Your task to perform on an android device: open app "VLC for Android" (install if not already installed) and enter user name: "Yves@outlook.com" and password: "internally" Image 0: 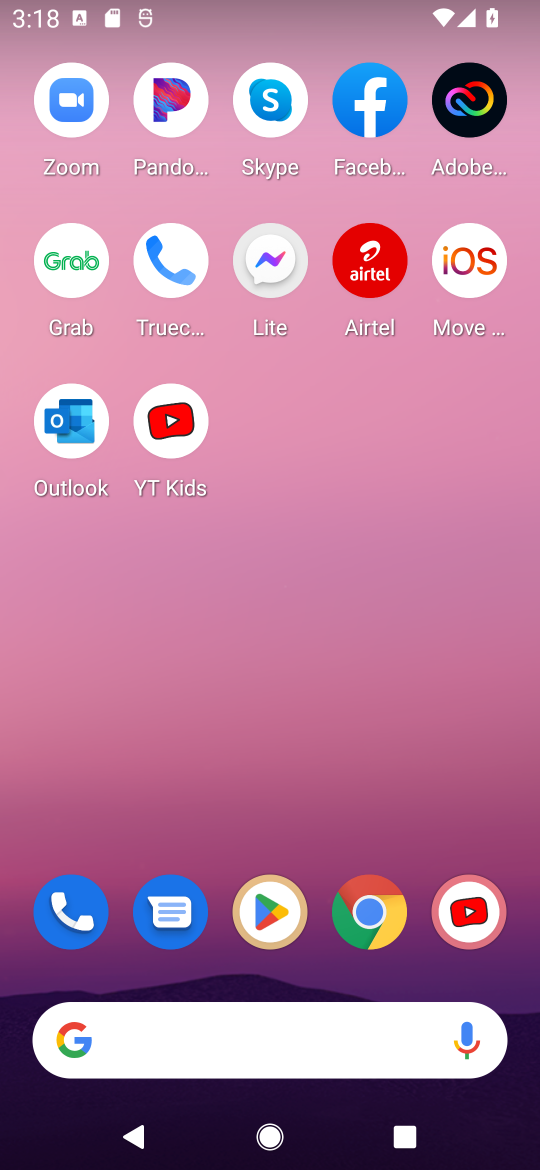
Step 0: drag from (196, 1056) to (269, 339)
Your task to perform on an android device: open app "VLC for Android" (install if not already installed) and enter user name: "Yves@outlook.com" and password: "internally" Image 1: 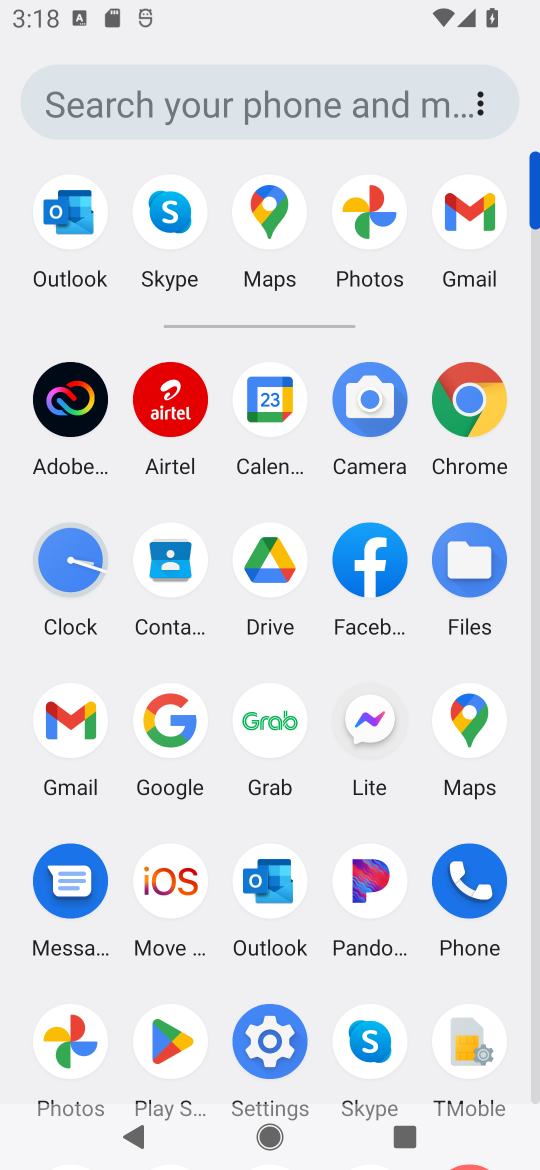
Step 1: click (171, 1043)
Your task to perform on an android device: open app "VLC for Android" (install if not already installed) and enter user name: "Yves@outlook.com" and password: "internally" Image 2: 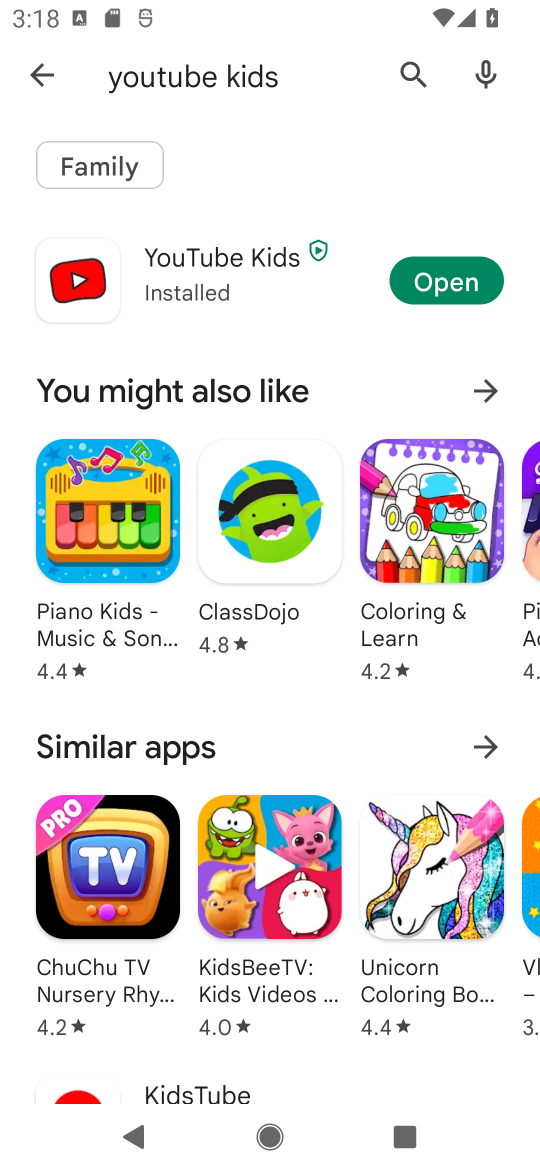
Step 2: press back button
Your task to perform on an android device: open app "VLC for Android" (install if not already installed) and enter user name: "Yves@outlook.com" and password: "internally" Image 3: 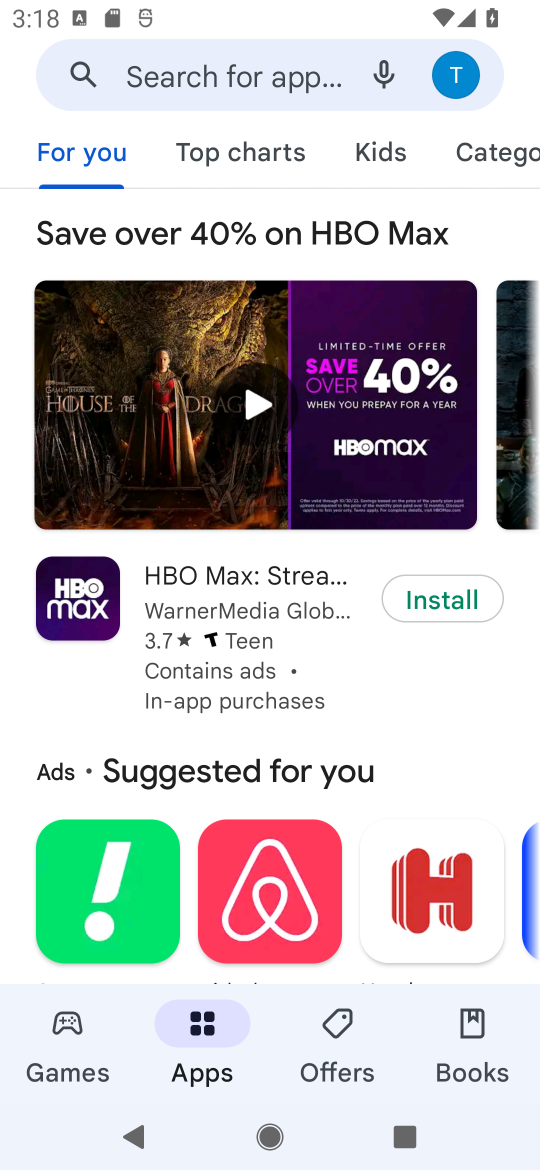
Step 3: click (271, 82)
Your task to perform on an android device: open app "VLC for Android" (install if not already installed) and enter user name: "Yves@outlook.com" and password: "internally" Image 4: 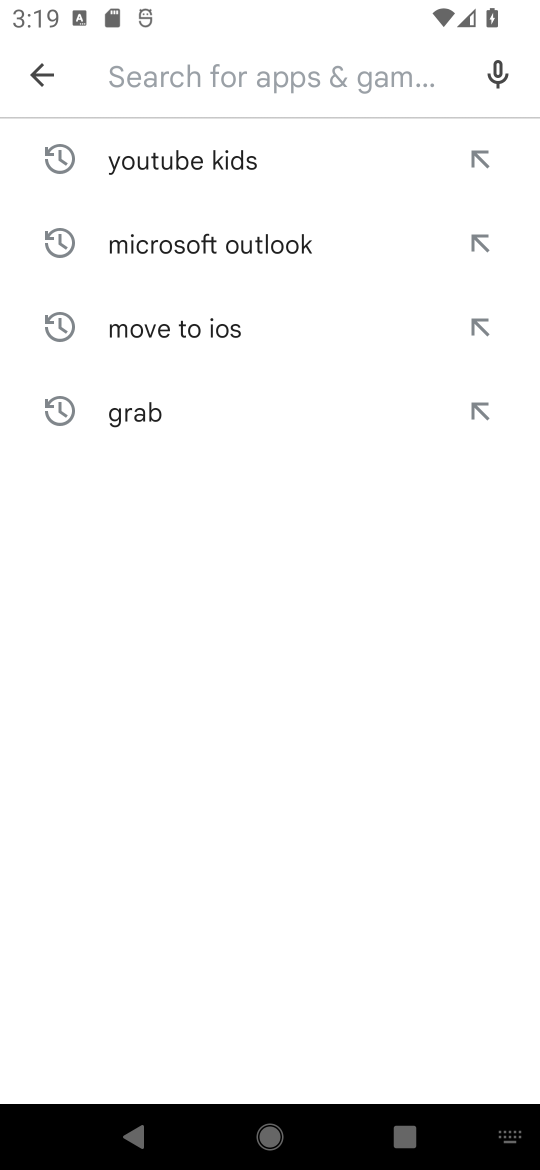
Step 4: type "VLC for Android"
Your task to perform on an android device: open app "VLC for Android" (install if not already installed) and enter user name: "Yves@outlook.com" and password: "internally" Image 5: 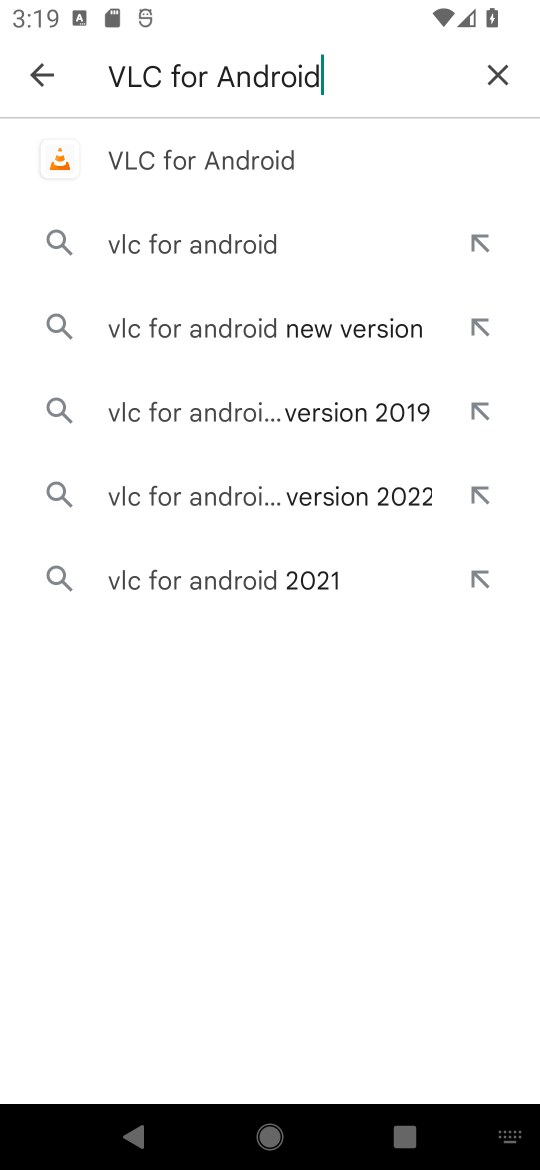
Step 5: click (248, 172)
Your task to perform on an android device: open app "VLC for Android" (install if not already installed) and enter user name: "Yves@outlook.com" and password: "internally" Image 6: 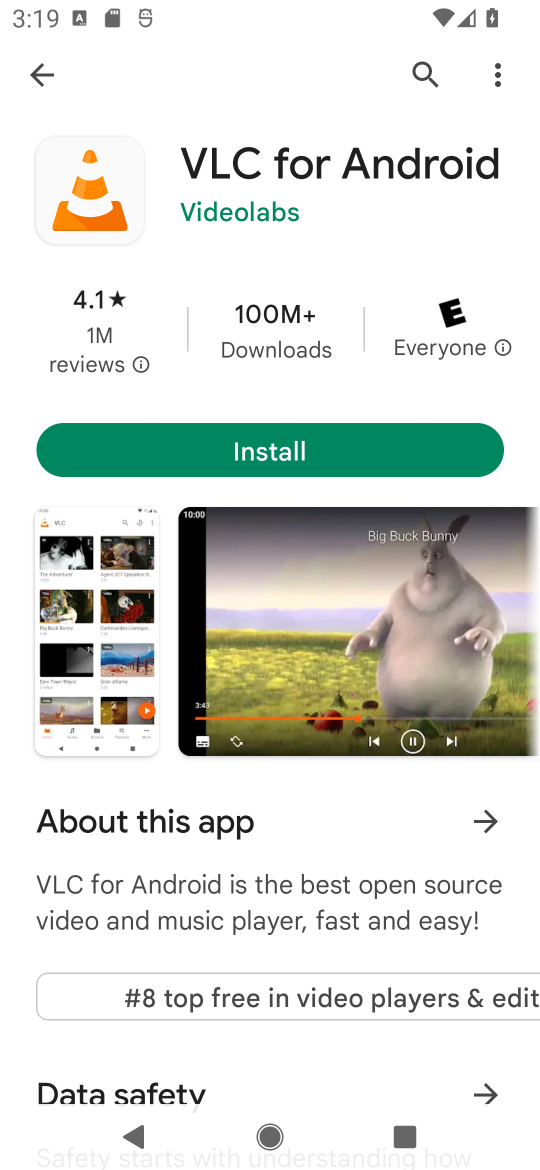
Step 6: click (251, 452)
Your task to perform on an android device: open app "VLC for Android" (install if not already installed) and enter user name: "Yves@outlook.com" and password: "internally" Image 7: 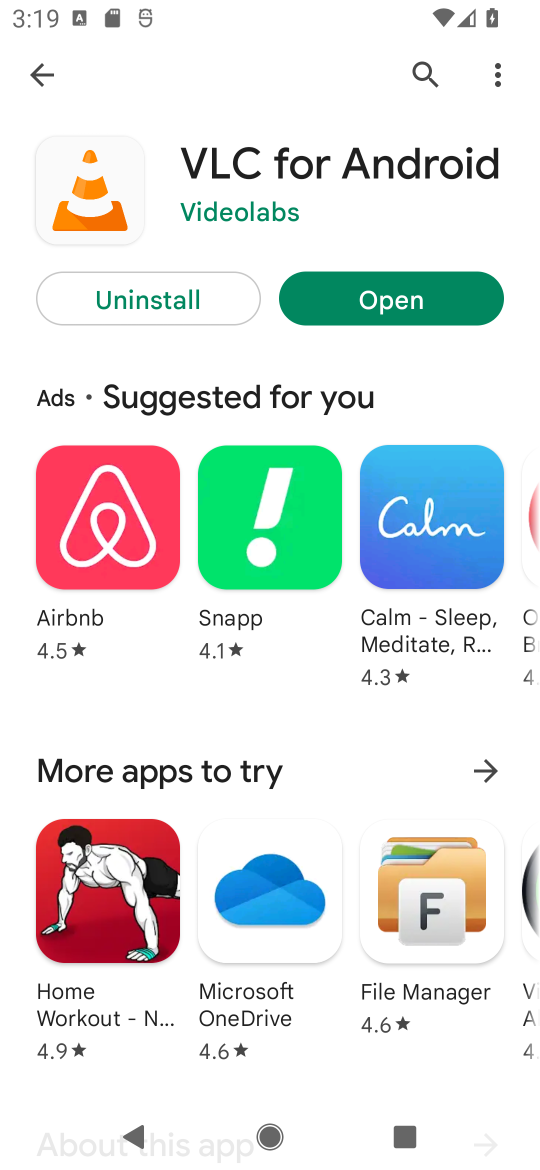
Step 7: click (390, 301)
Your task to perform on an android device: open app "VLC for Android" (install if not already installed) and enter user name: "Yves@outlook.com" and password: "internally" Image 8: 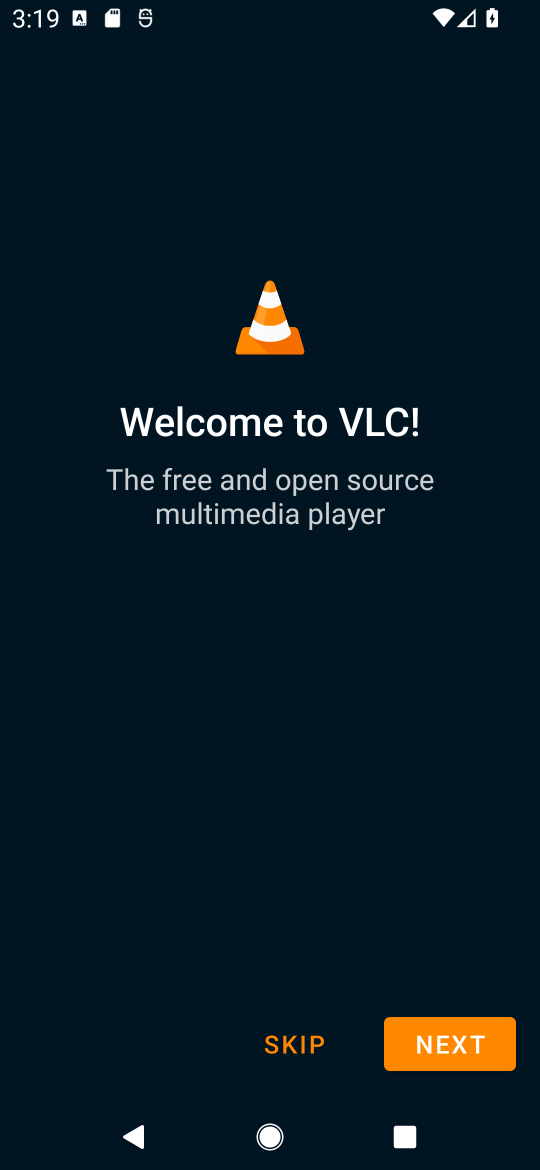
Step 8: click (308, 1044)
Your task to perform on an android device: open app "VLC for Android" (install if not already installed) and enter user name: "Yves@outlook.com" and password: "internally" Image 9: 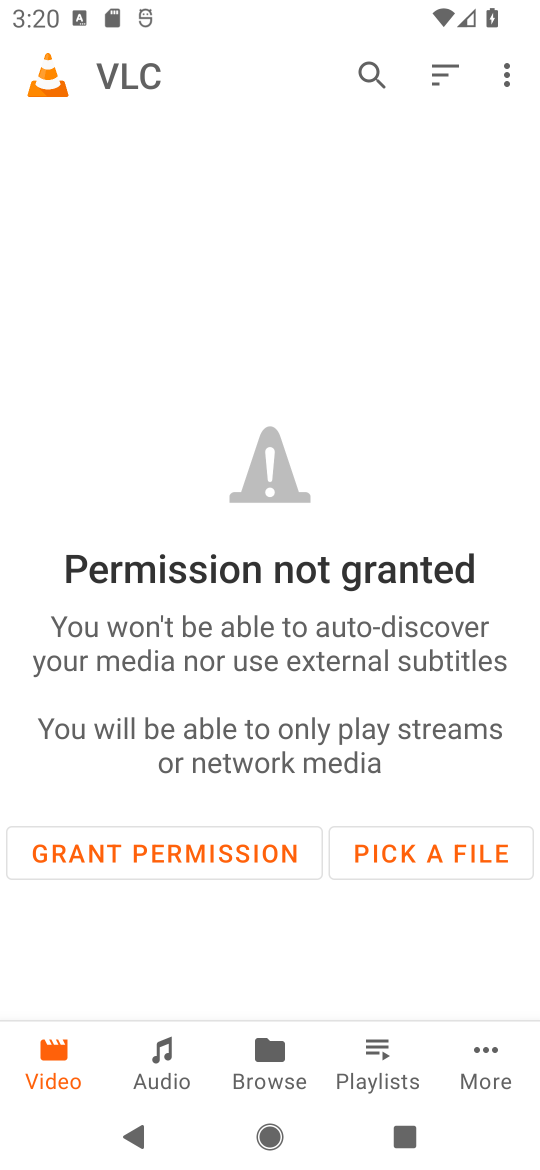
Step 9: click (46, 75)
Your task to perform on an android device: open app "VLC for Android" (install if not already installed) and enter user name: "Yves@outlook.com" and password: "internally" Image 10: 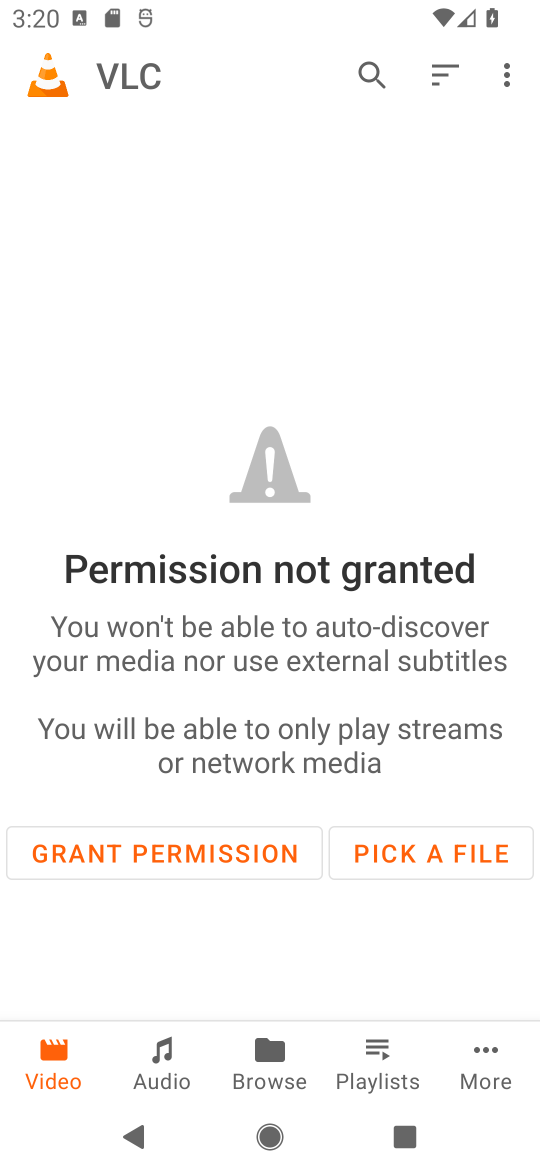
Step 10: click (512, 78)
Your task to perform on an android device: open app "VLC for Android" (install if not already installed) and enter user name: "Yves@outlook.com" and password: "internally" Image 11: 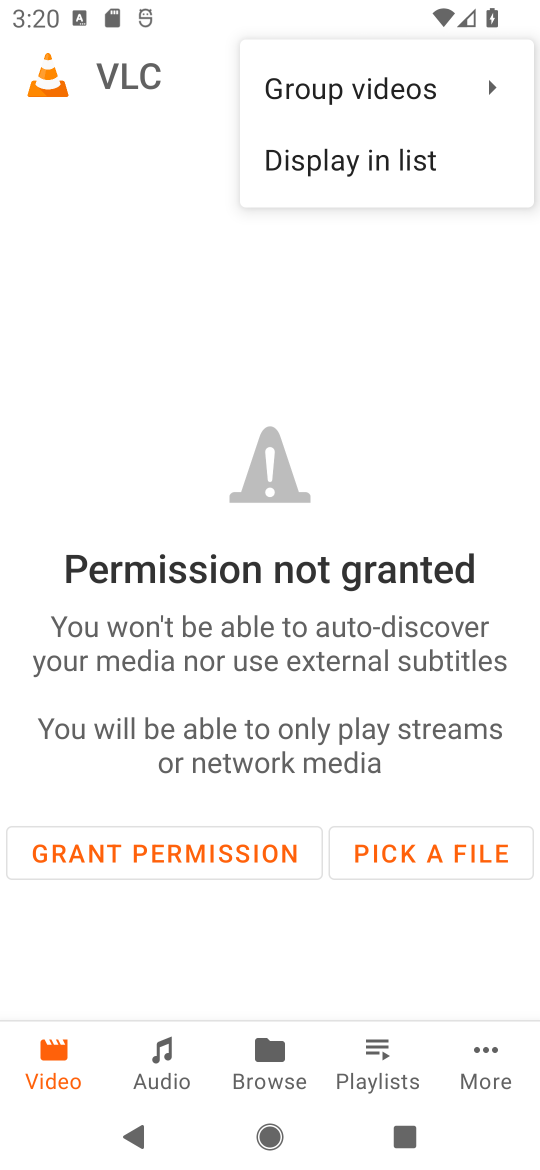
Step 11: click (473, 1056)
Your task to perform on an android device: open app "VLC for Android" (install if not already installed) and enter user name: "Yves@outlook.com" and password: "internally" Image 12: 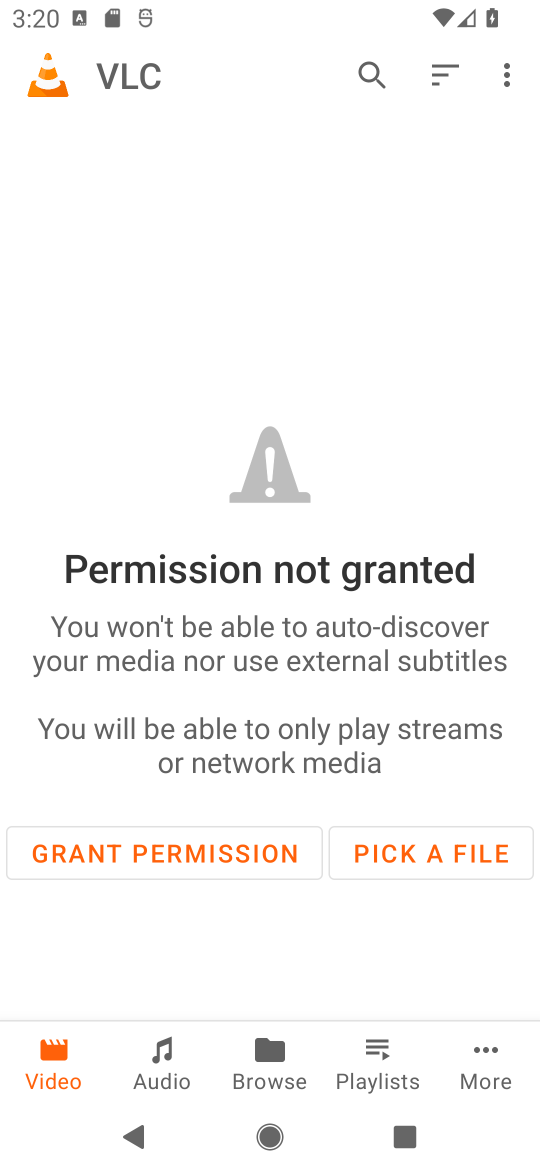
Step 12: click (487, 1054)
Your task to perform on an android device: open app "VLC for Android" (install if not already installed) and enter user name: "Yves@outlook.com" and password: "internally" Image 13: 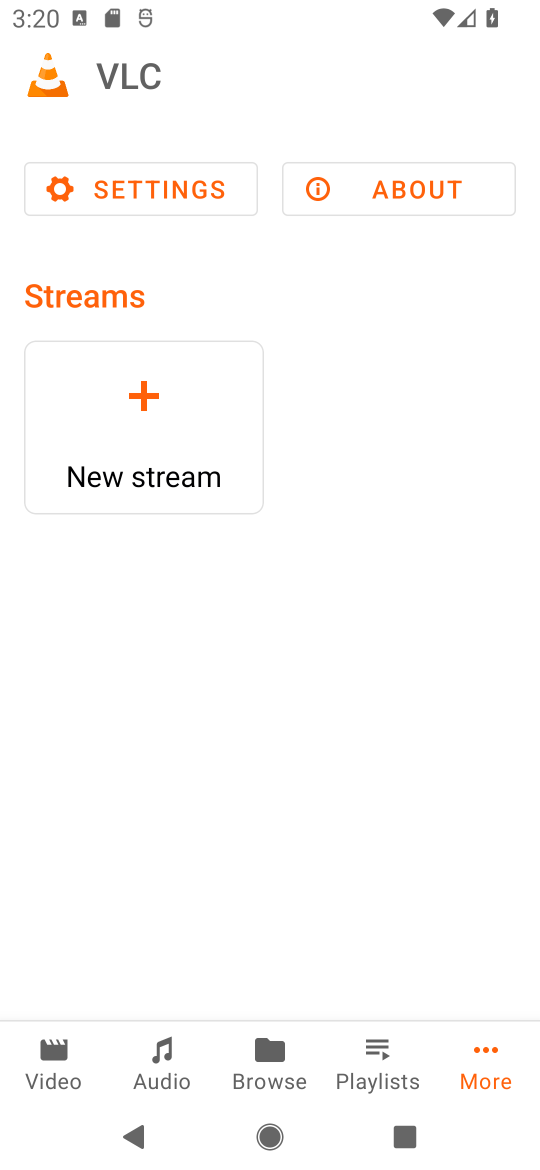
Step 13: click (162, 174)
Your task to perform on an android device: open app "VLC for Android" (install if not already installed) and enter user name: "Yves@outlook.com" and password: "internally" Image 14: 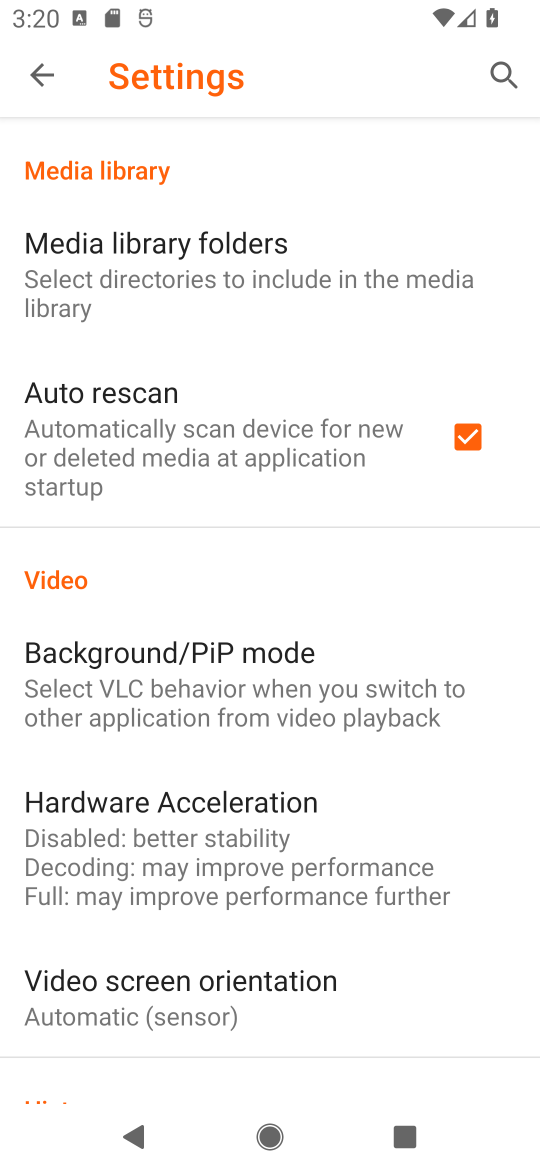
Step 14: task complete